Your task to perform on an android device: check out phone information Image 0: 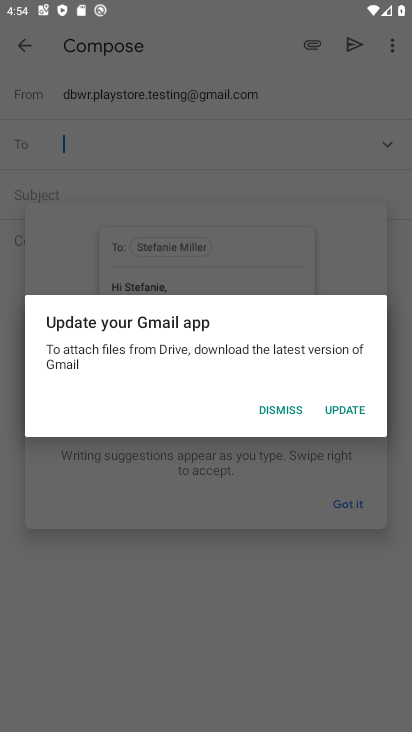
Step 0: press home button
Your task to perform on an android device: check out phone information Image 1: 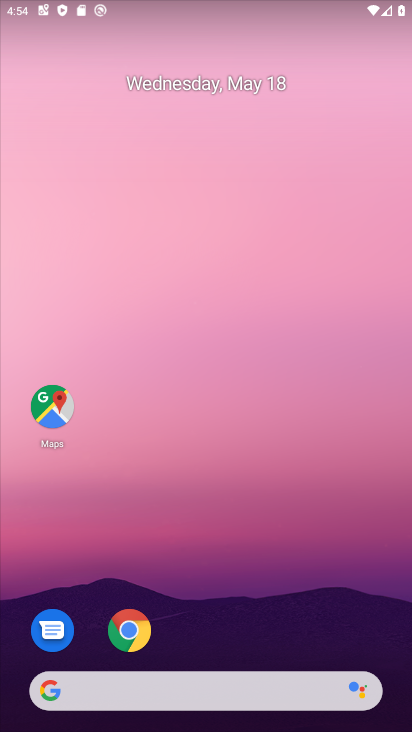
Step 1: drag from (203, 673) to (217, 228)
Your task to perform on an android device: check out phone information Image 2: 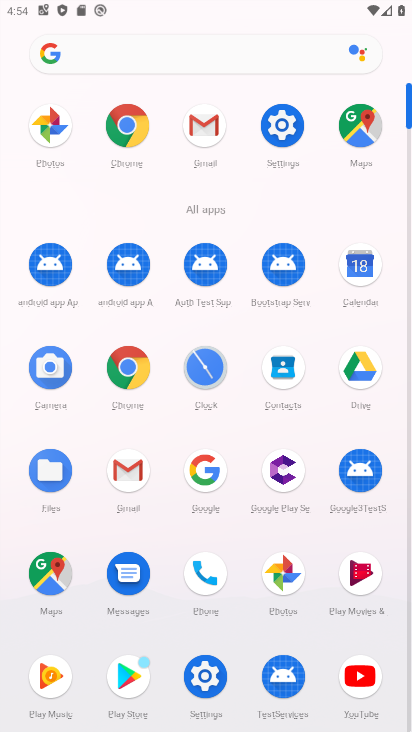
Step 2: click (213, 577)
Your task to perform on an android device: check out phone information Image 3: 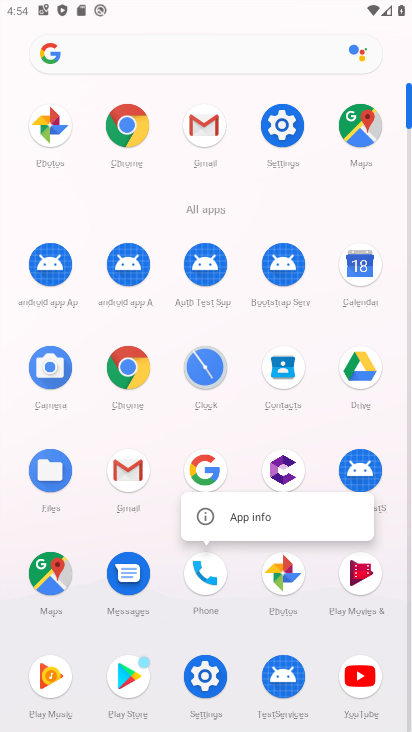
Step 3: click (250, 513)
Your task to perform on an android device: check out phone information Image 4: 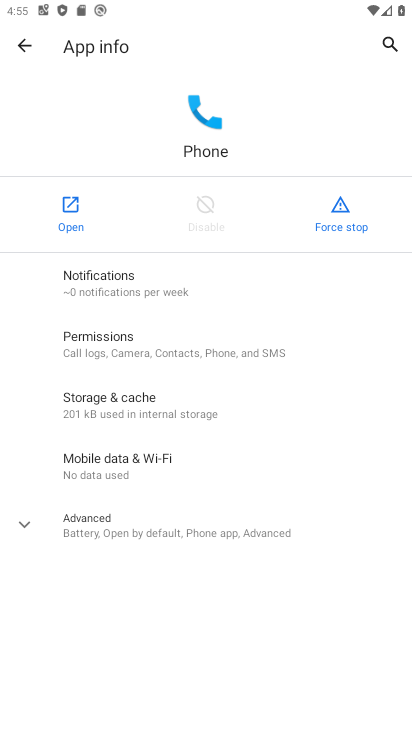
Step 4: click (122, 521)
Your task to perform on an android device: check out phone information Image 5: 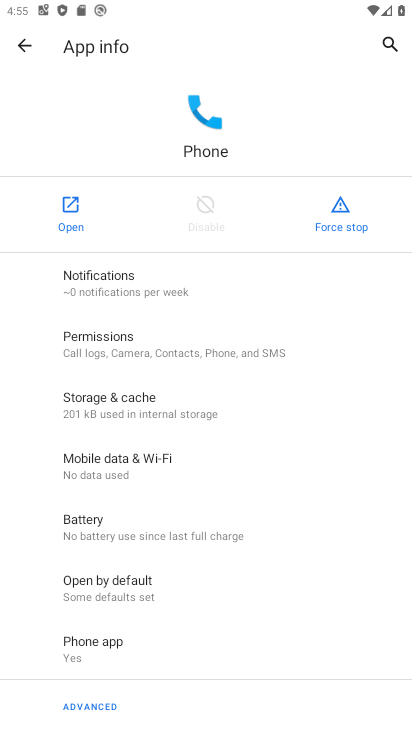
Step 5: task complete